Your task to perform on an android device: Go to wifi settings Image 0: 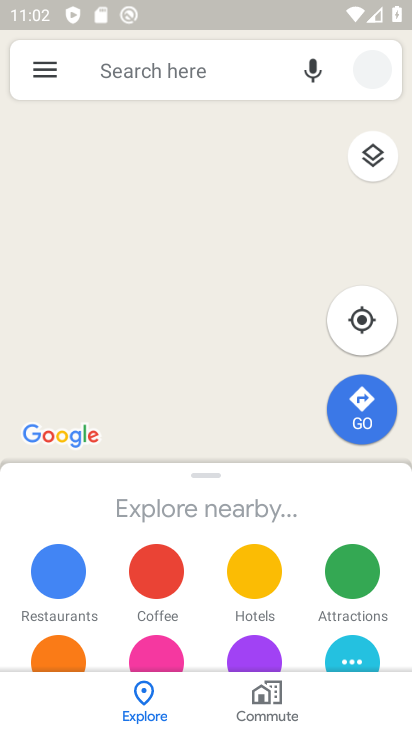
Step 0: press home button
Your task to perform on an android device: Go to wifi settings Image 1: 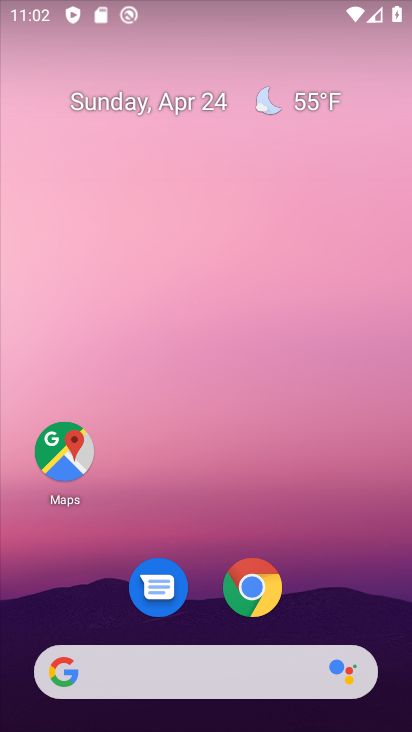
Step 1: drag from (342, 601) to (393, 88)
Your task to perform on an android device: Go to wifi settings Image 2: 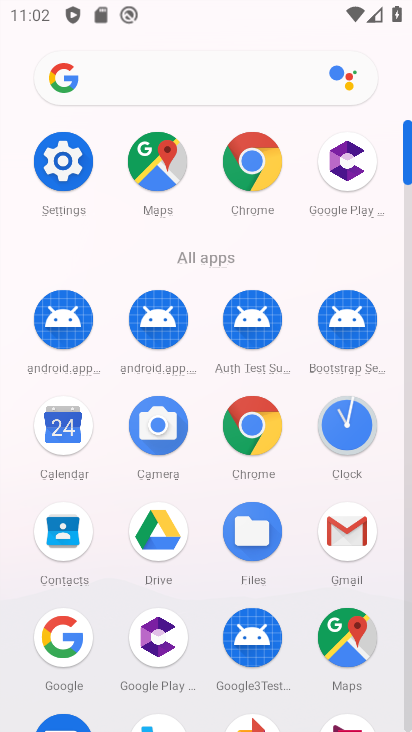
Step 2: click (57, 163)
Your task to perform on an android device: Go to wifi settings Image 3: 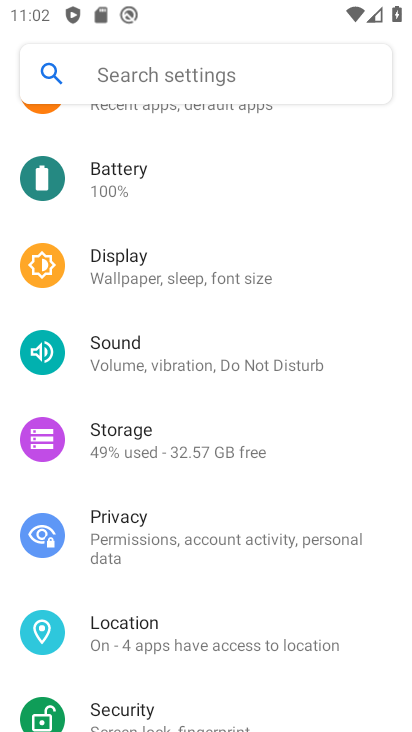
Step 3: drag from (244, 254) to (296, 641)
Your task to perform on an android device: Go to wifi settings Image 4: 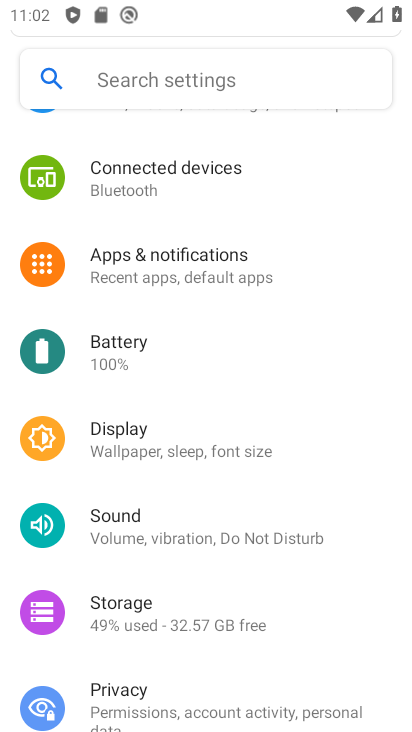
Step 4: drag from (224, 213) to (228, 629)
Your task to perform on an android device: Go to wifi settings Image 5: 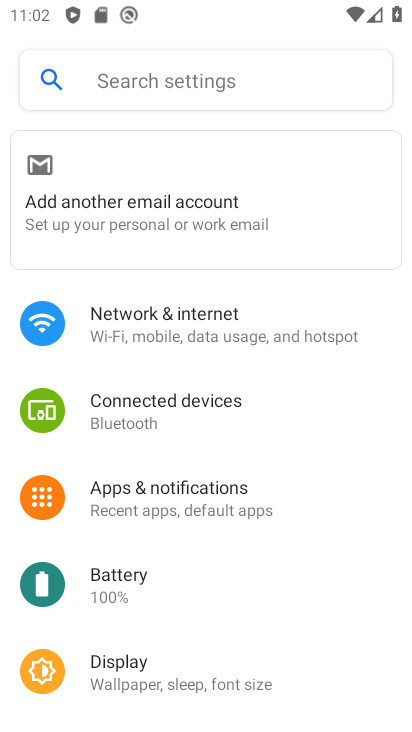
Step 5: click (131, 332)
Your task to perform on an android device: Go to wifi settings Image 6: 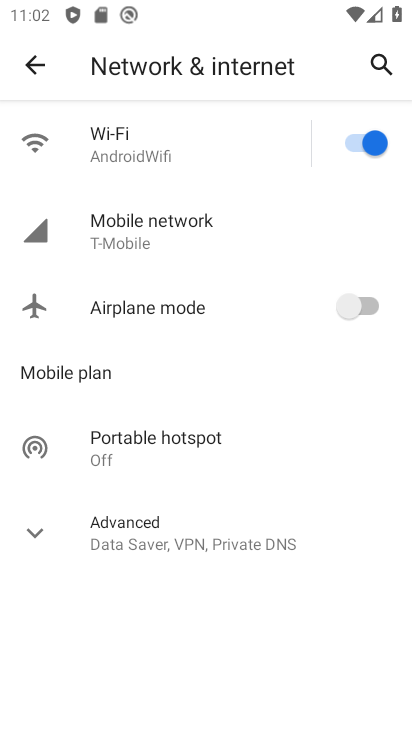
Step 6: click (185, 139)
Your task to perform on an android device: Go to wifi settings Image 7: 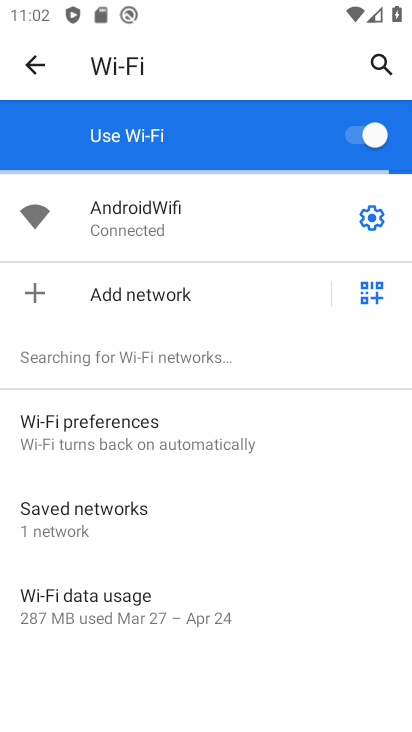
Step 7: click (372, 216)
Your task to perform on an android device: Go to wifi settings Image 8: 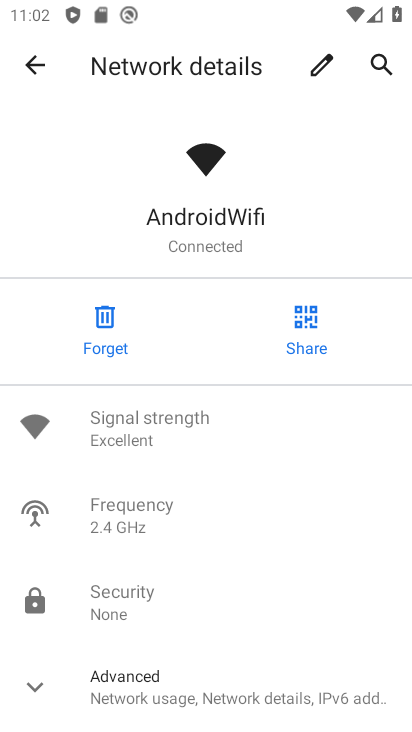
Step 8: task complete